Your task to perform on an android device: open chrome privacy settings Image 0: 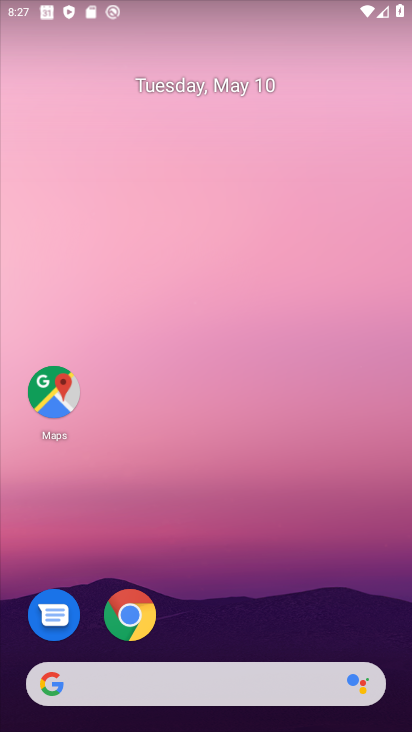
Step 0: drag from (261, 615) to (337, 239)
Your task to perform on an android device: open chrome privacy settings Image 1: 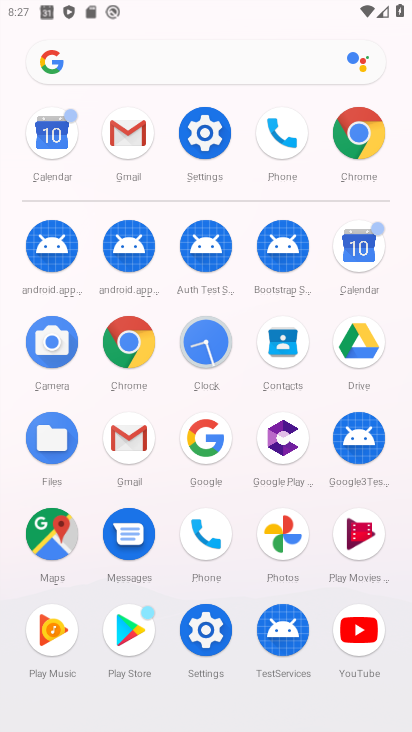
Step 1: click (363, 131)
Your task to perform on an android device: open chrome privacy settings Image 2: 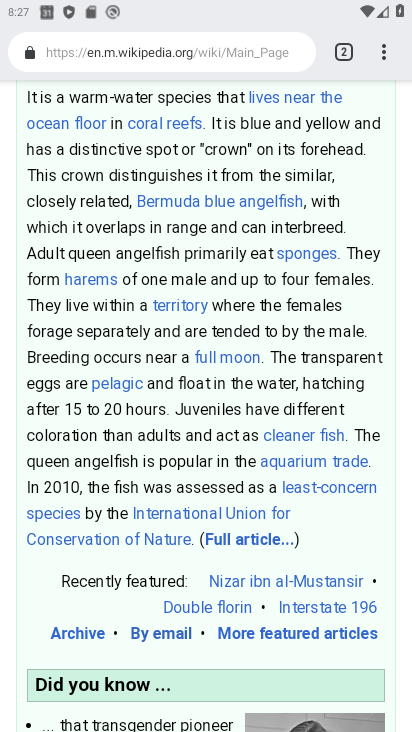
Step 2: drag from (234, 579) to (265, 346)
Your task to perform on an android device: open chrome privacy settings Image 3: 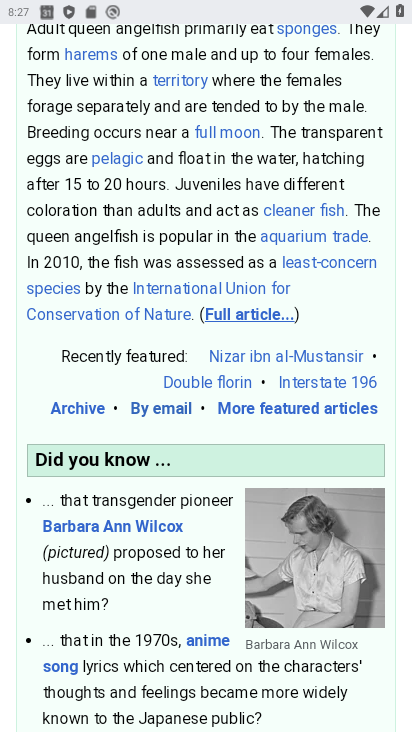
Step 3: drag from (300, 223) to (405, 430)
Your task to perform on an android device: open chrome privacy settings Image 4: 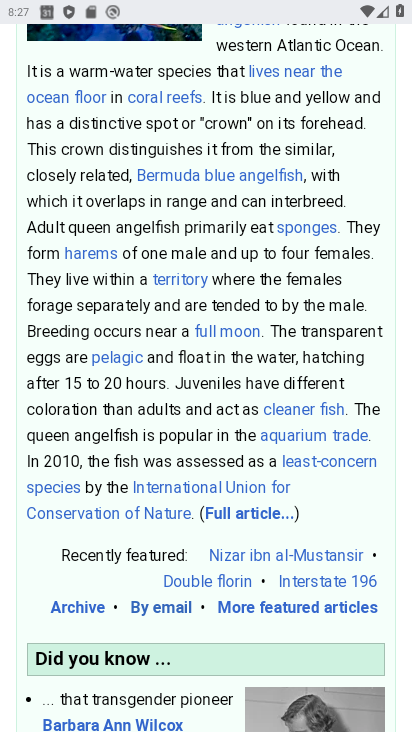
Step 4: drag from (394, 55) to (383, 231)
Your task to perform on an android device: open chrome privacy settings Image 5: 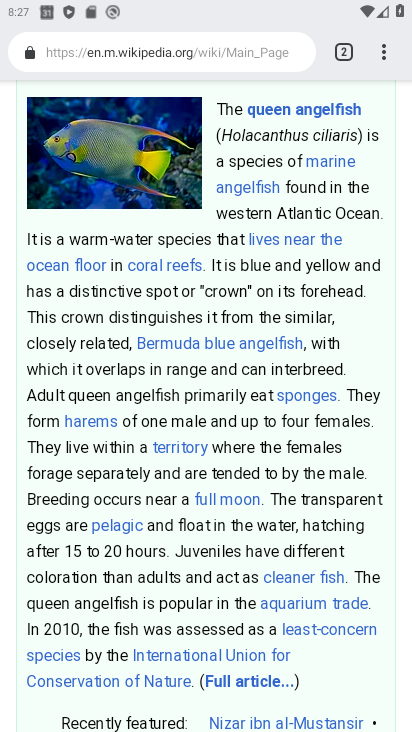
Step 5: click (389, 51)
Your task to perform on an android device: open chrome privacy settings Image 6: 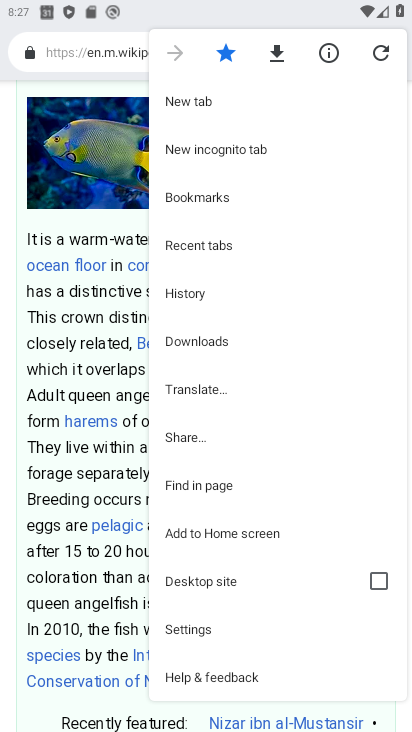
Step 6: click (234, 638)
Your task to perform on an android device: open chrome privacy settings Image 7: 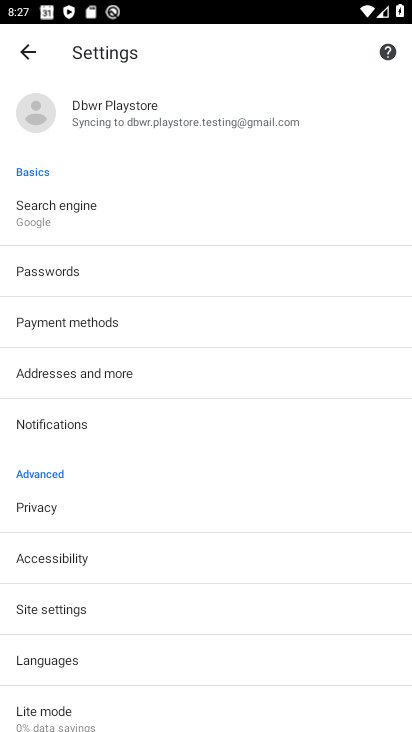
Step 7: click (129, 519)
Your task to perform on an android device: open chrome privacy settings Image 8: 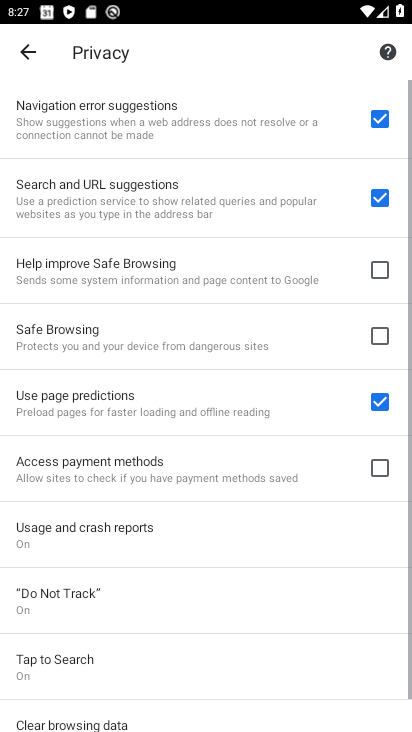
Step 8: task complete